Your task to perform on an android device: manage bookmarks in the chrome app Image 0: 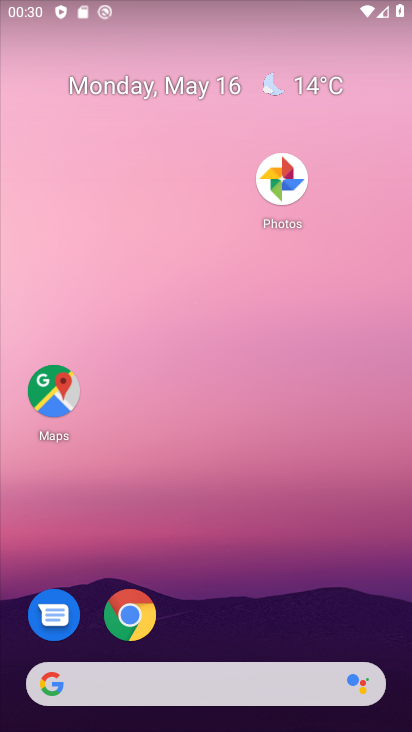
Step 0: drag from (359, 608) to (370, 180)
Your task to perform on an android device: manage bookmarks in the chrome app Image 1: 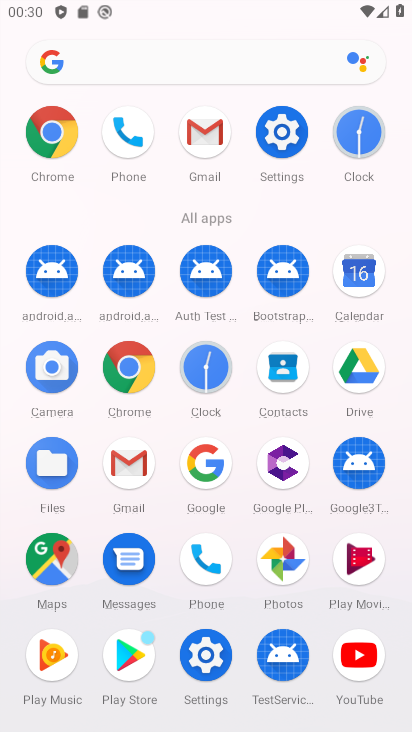
Step 1: drag from (256, 556) to (222, 281)
Your task to perform on an android device: manage bookmarks in the chrome app Image 2: 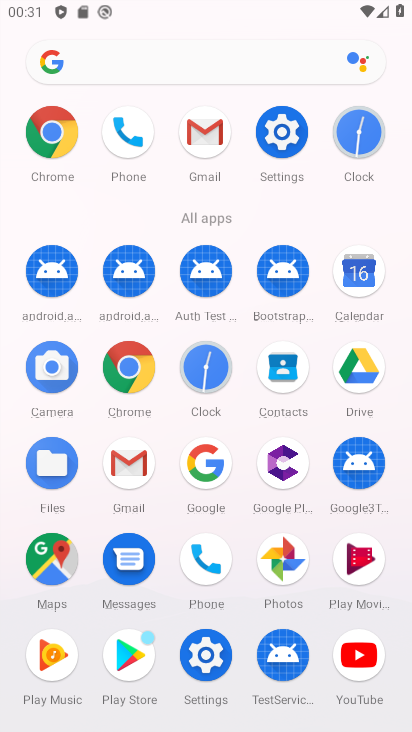
Step 2: click (134, 379)
Your task to perform on an android device: manage bookmarks in the chrome app Image 3: 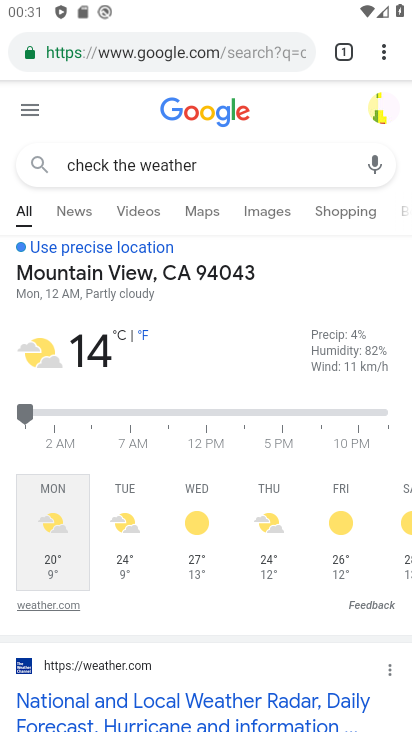
Step 3: task complete